Your task to perform on an android device: set an alarm Image 0: 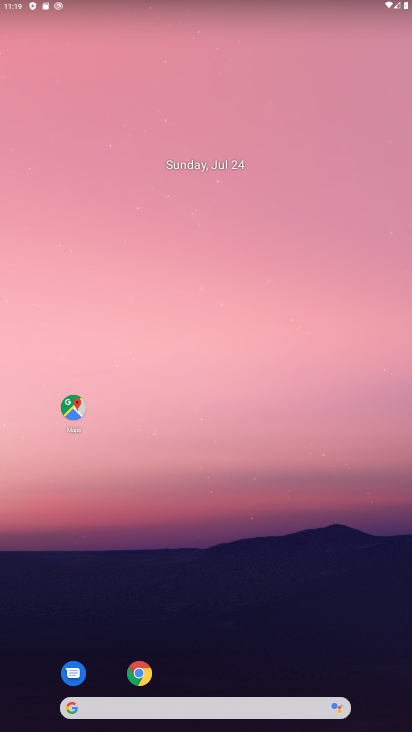
Step 0: drag from (340, 643) to (264, 6)
Your task to perform on an android device: set an alarm Image 1: 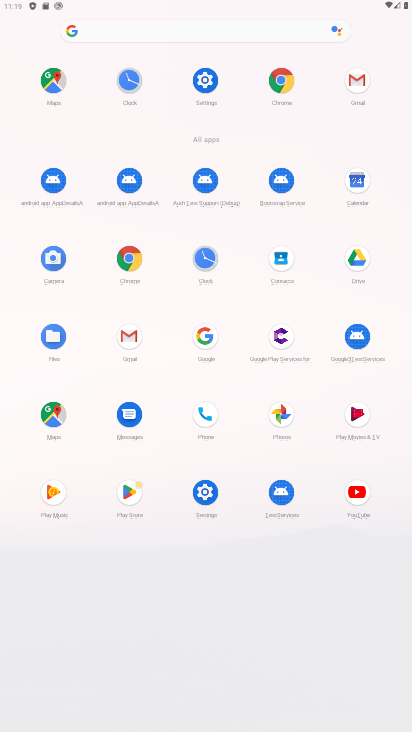
Step 1: click (205, 256)
Your task to perform on an android device: set an alarm Image 2: 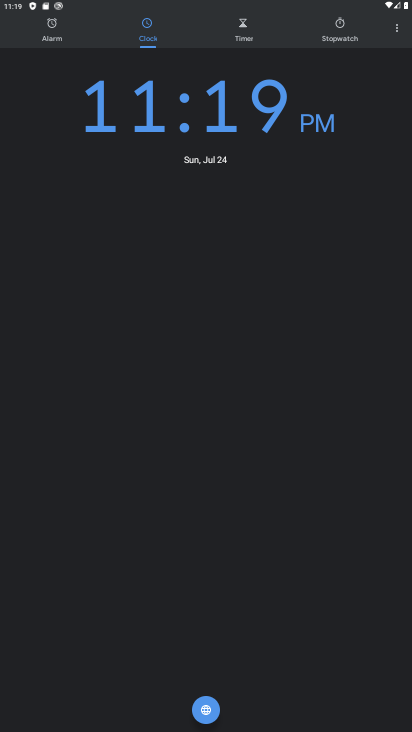
Step 2: click (71, 25)
Your task to perform on an android device: set an alarm Image 3: 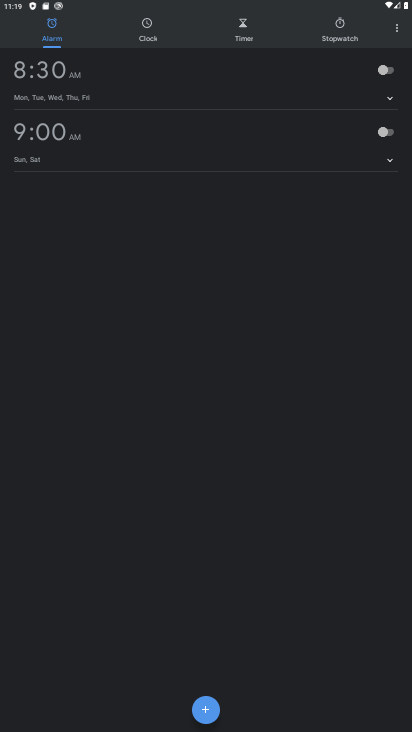
Step 3: click (209, 707)
Your task to perform on an android device: set an alarm Image 4: 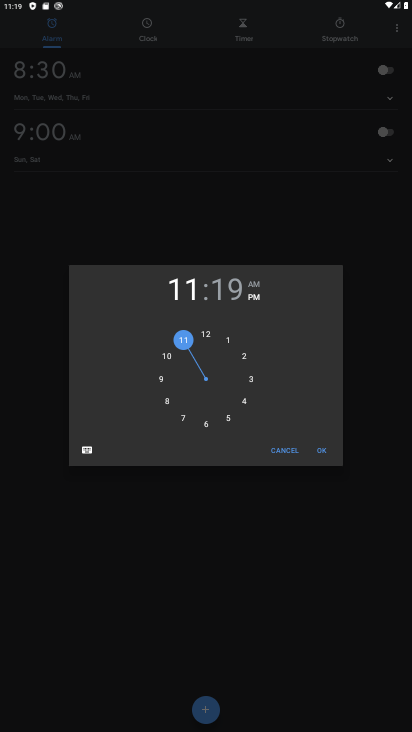
Step 4: click (325, 444)
Your task to perform on an android device: set an alarm Image 5: 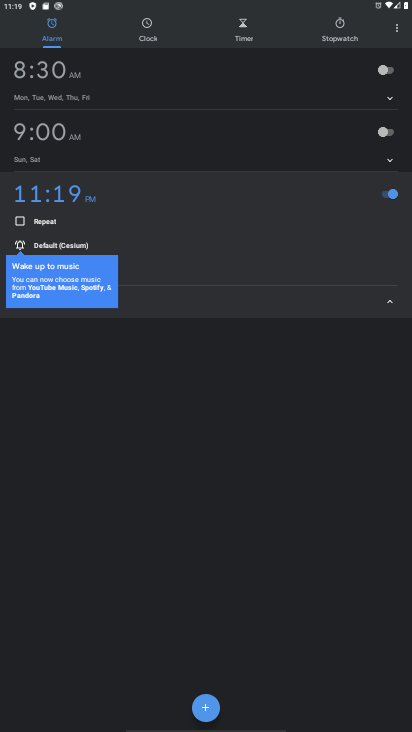
Step 5: task complete